Your task to perform on an android device: Is it going to rain today? Image 0: 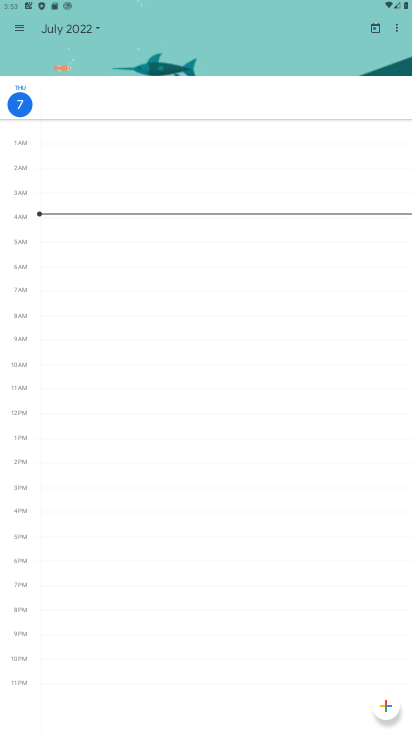
Step 0: press back button
Your task to perform on an android device: Is it going to rain today? Image 1: 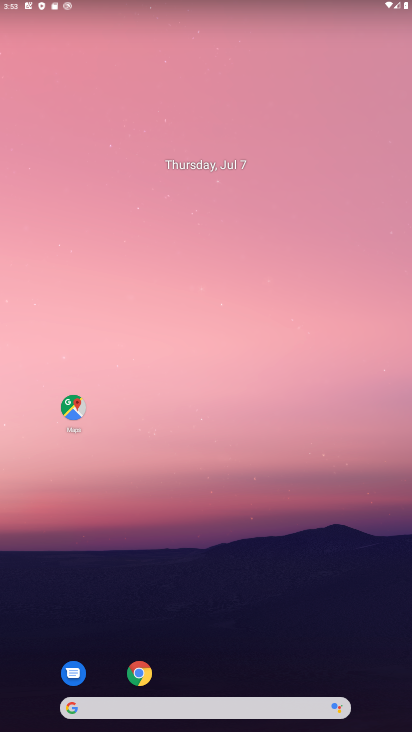
Step 1: click (167, 712)
Your task to perform on an android device: Is it going to rain today? Image 2: 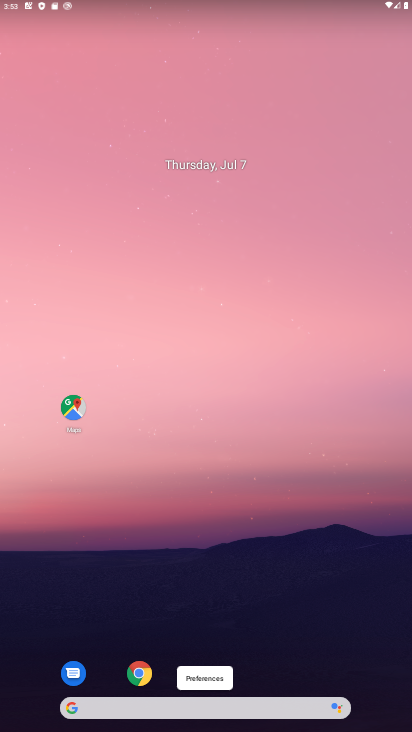
Step 2: click (159, 709)
Your task to perform on an android device: Is it going to rain today? Image 3: 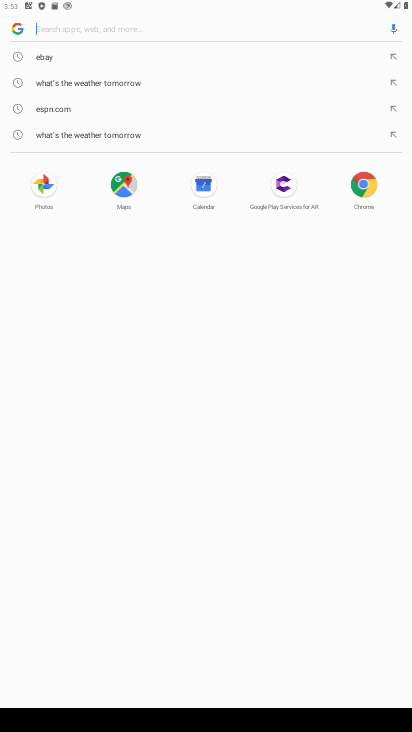
Step 3: click (83, 84)
Your task to perform on an android device: Is it going to rain today? Image 4: 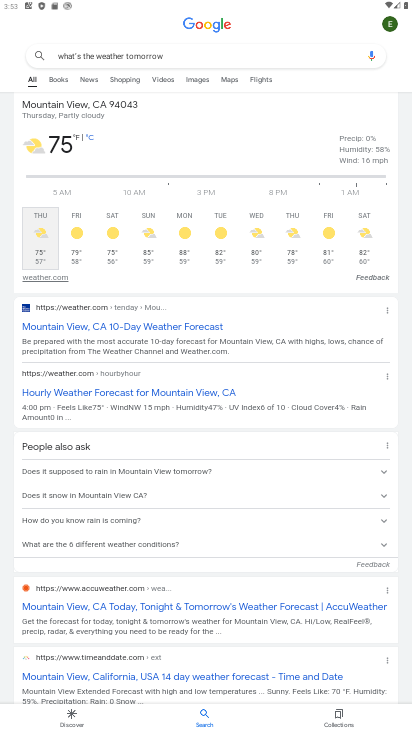
Step 4: click (104, 326)
Your task to perform on an android device: Is it going to rain today? Image 5: 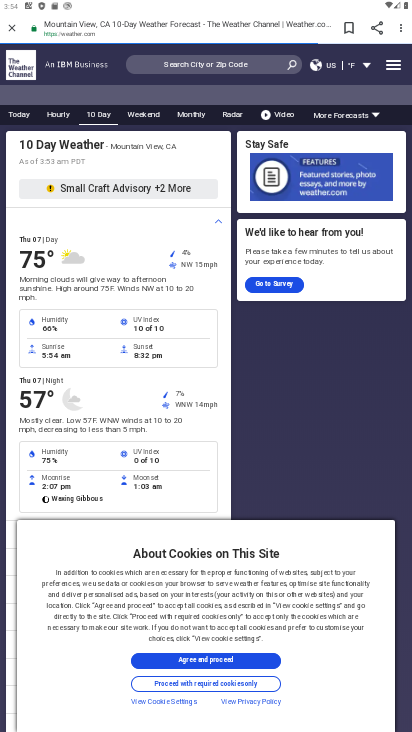
Step 5: task complete